Your task to perform on an android device: Play the last video I watched on Youtube Image 0: 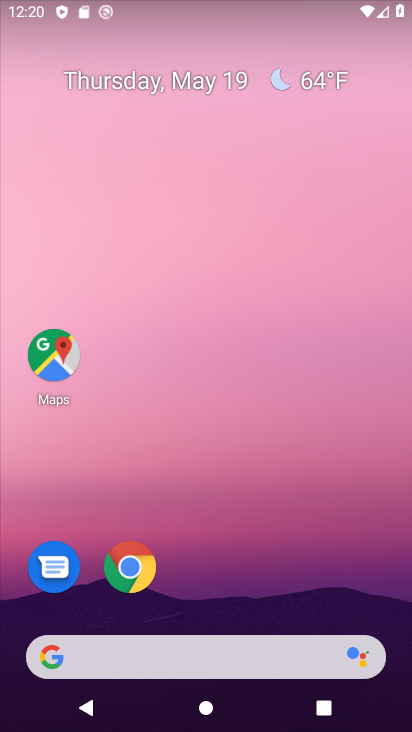
Step 0: drag from (271, 597) to (270, 143)
Your task to perform on an android device: Play the last video I watched on Youtube Image 1: 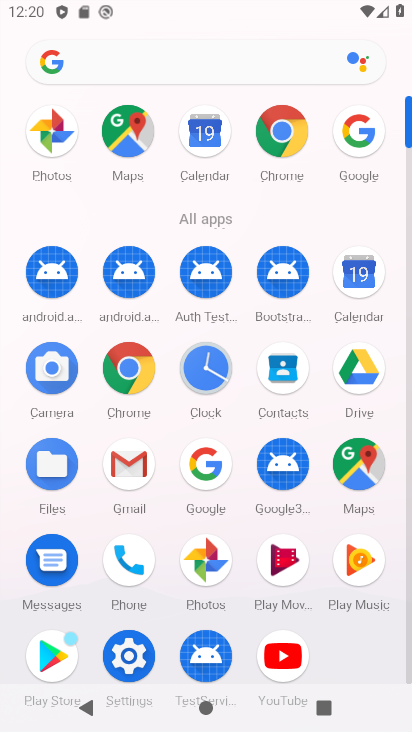
Step 1: click (289, 663)
Your task to perform on an android device: Play the last video I watched on Youtube Image 2: 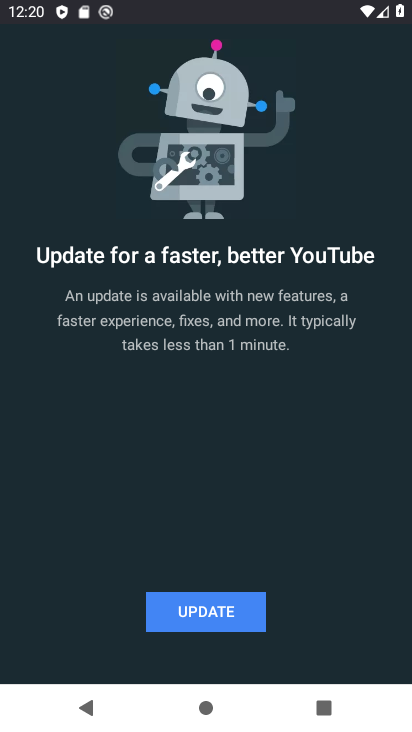
Step 2: click (228, 617)
Your task to perform on an android device: Play the last video I watched on Youtube Image 3: 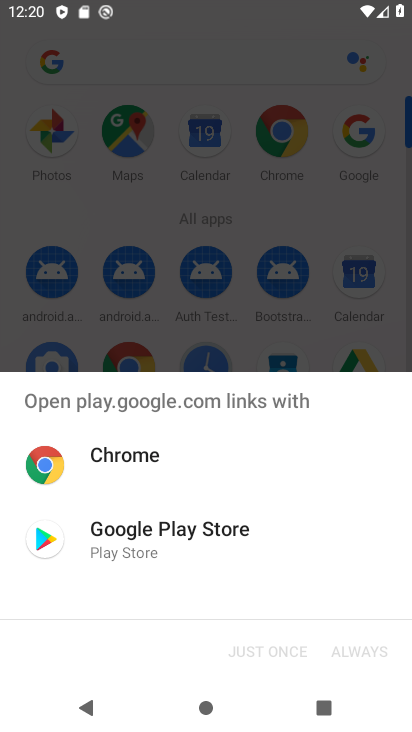
Step 3: click (159, 543)
Your task to perform on an android device: Play the last video I watched on Youtube Image 4: 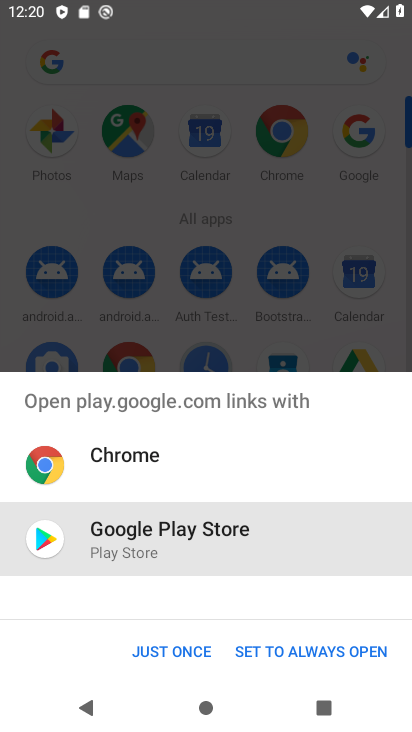
Step 4: drag from (255, 655) to (168, 656)
Your task to perform on an android device: Play the last video I watched on Youtube Image 5: 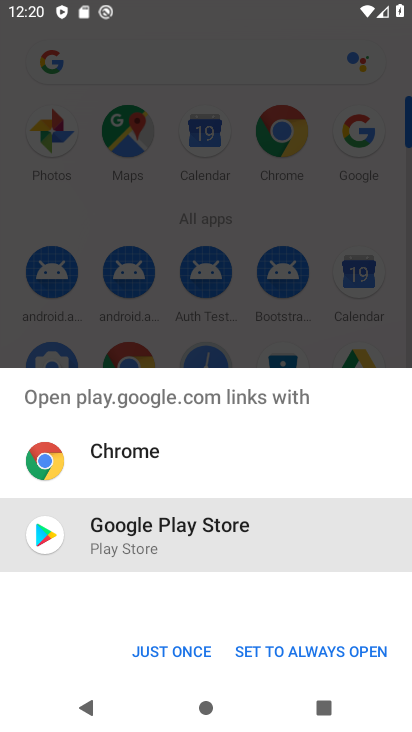
Step 5: click (168, 654)
Your task to perform on an android device: Play the last video I watched on Youtube Image 6: 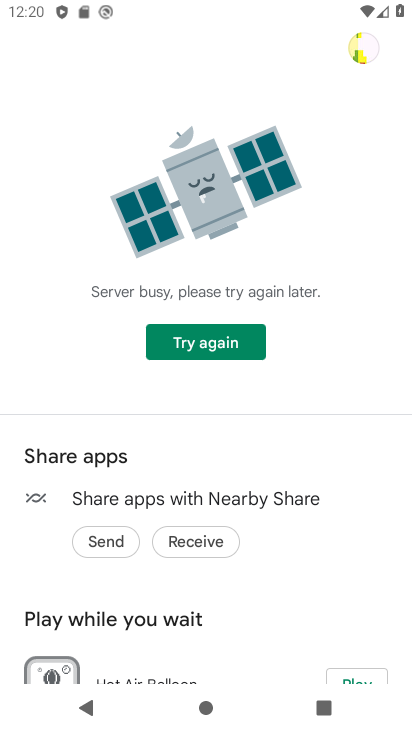
Step 6: task complete